Your task to perform on an android device: check storage Image 0: 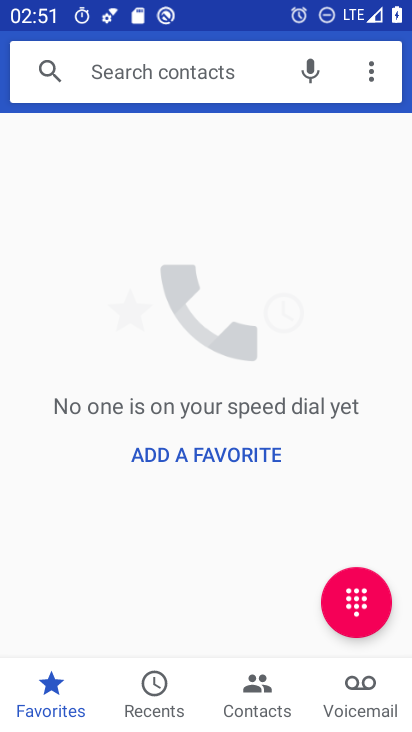
Step 0: press home button
Your task to perform on an android device: check storage Image 1: 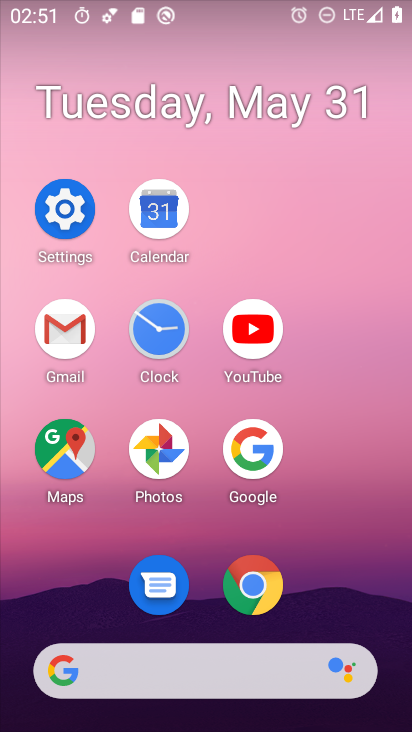
Step 1: click (94, 203)
Your task to perform on an android device: check storage Image 2: 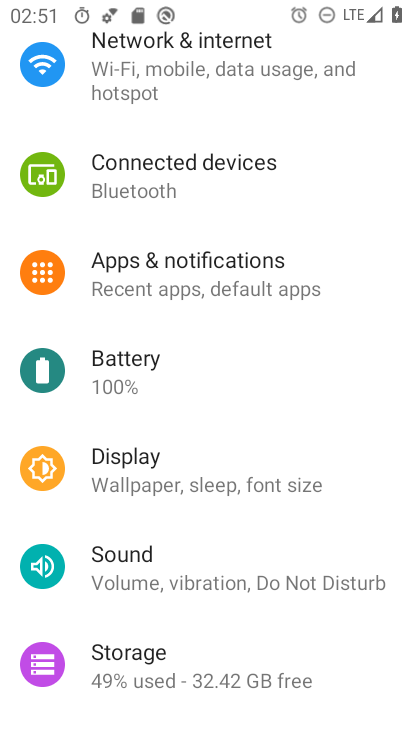
Step 2: click (204, 667)
Your task to perform on an android device: check storage Image 3: 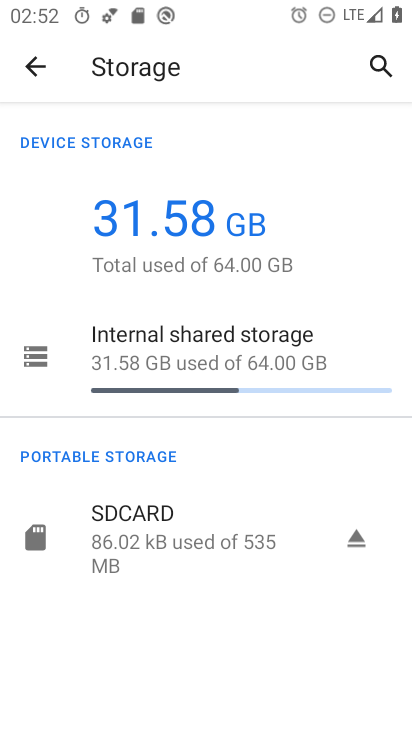
Step 3: task complete